Your task to perform on an android device: Open settings on Google Maps Image 0: 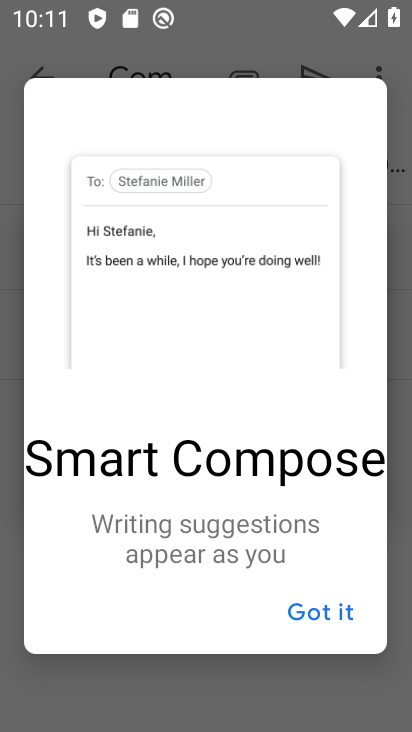
Step 0: press home button
Your task to perform on an android device: Open settings on Google Maps Image 1: 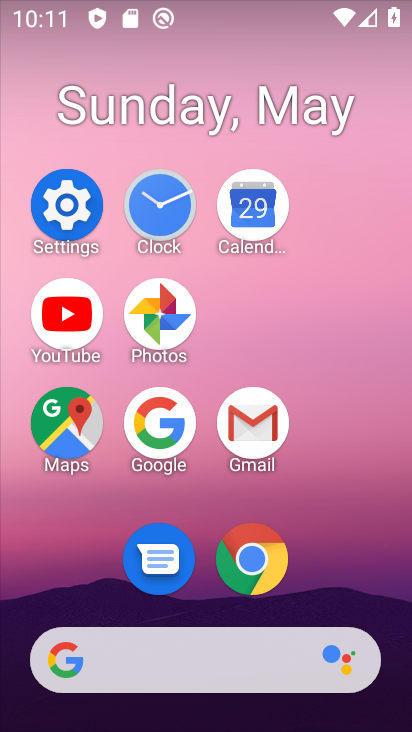
Step 1: click (86, 427)
Your task to perform on an android device: Open settings on Google Maps Image 2: 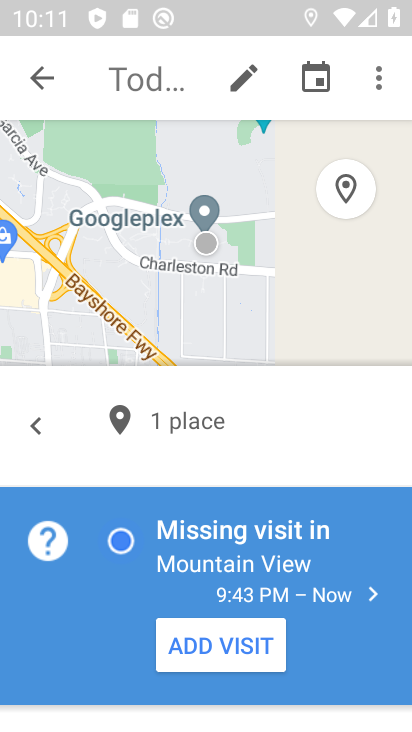
Step 2: click (58, 105)
Your task to perform on an android device: Open settings on Google Maps Image 3: 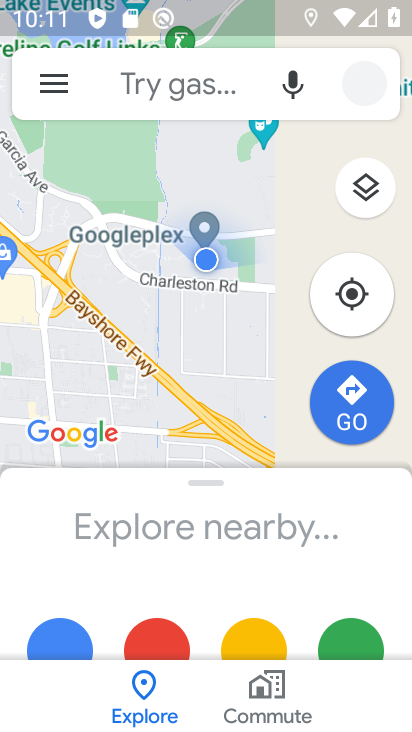
Step 3: click (58, 105)
Your task to perform on an android device: Open settings on Google Maps Image 4: 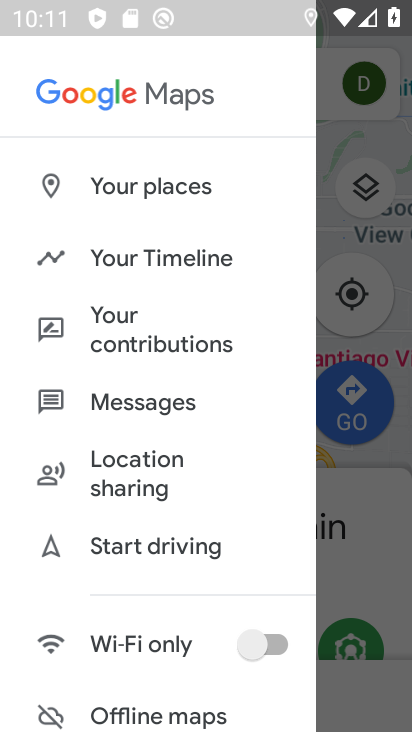
Step 4: drag from (145, 645) to (158, 255)
Your task to perform on an android device: Open settings on Google Maps Image 5: 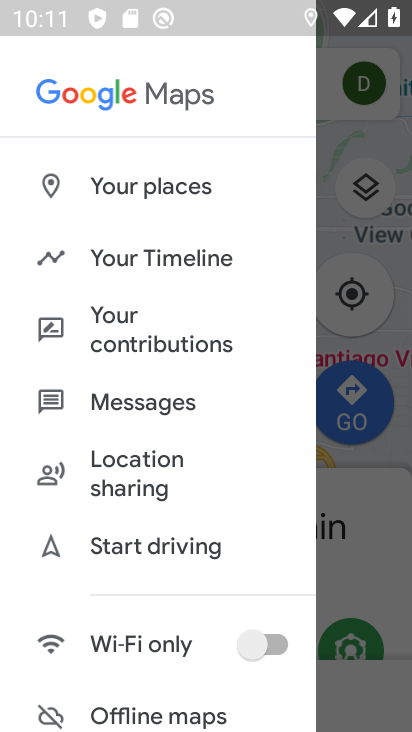
Step 5: drag from (134, 661) to (158, 233)
Your task to perform on an android device: Open settings on Google Maps Image 6: 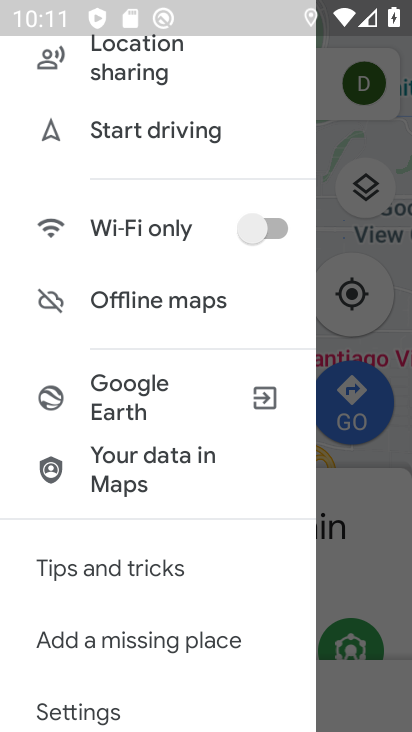
Step 6: click (115, 709)
Your task to perform on an android device: Open settings on Google Maps Image 7: 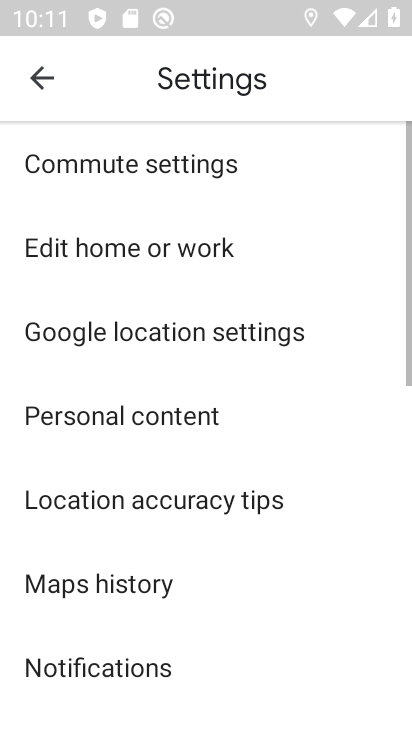
Step 7: task complete